Your task to perform on an android device: uninstall "Fetch Rewards" Image 0: 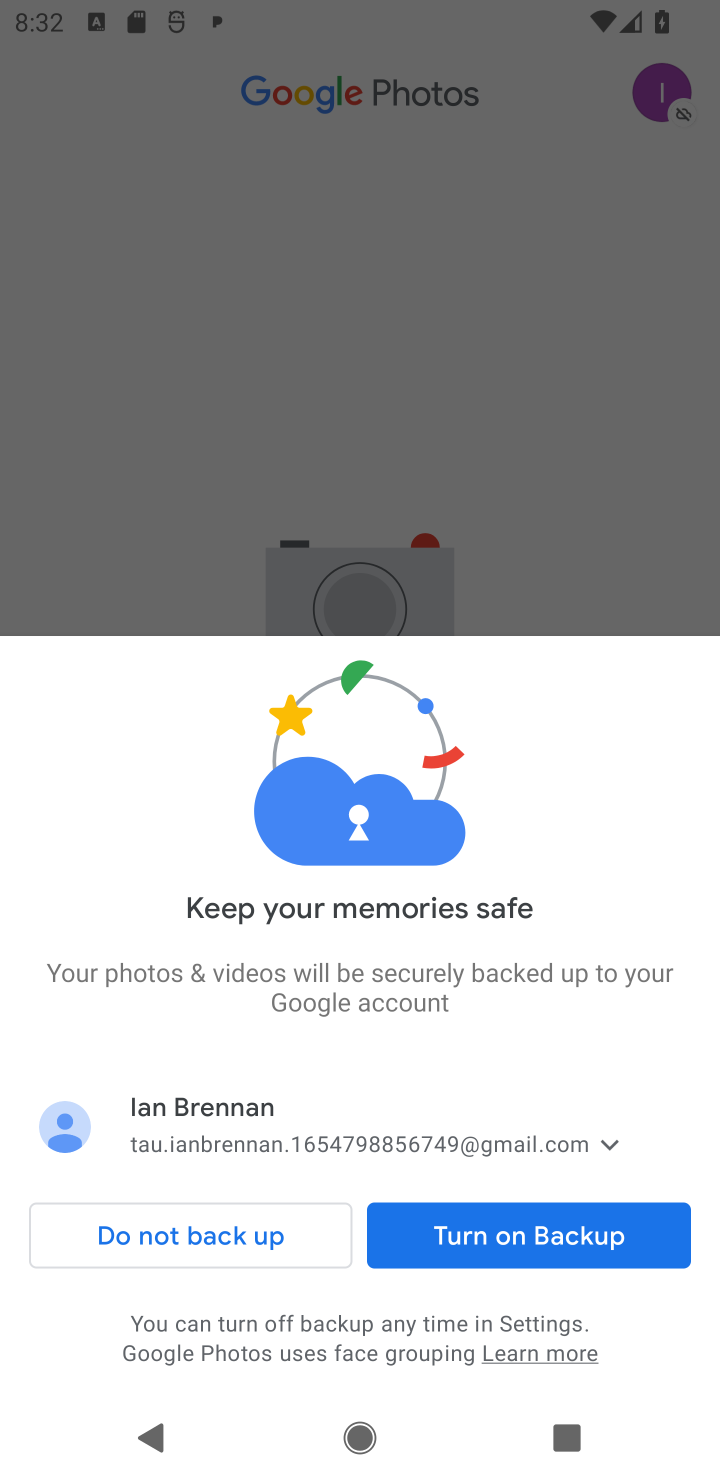
Step 0: press home button
Your task to perform on an android device: uninstall "Fetch Rewards" Image 1: 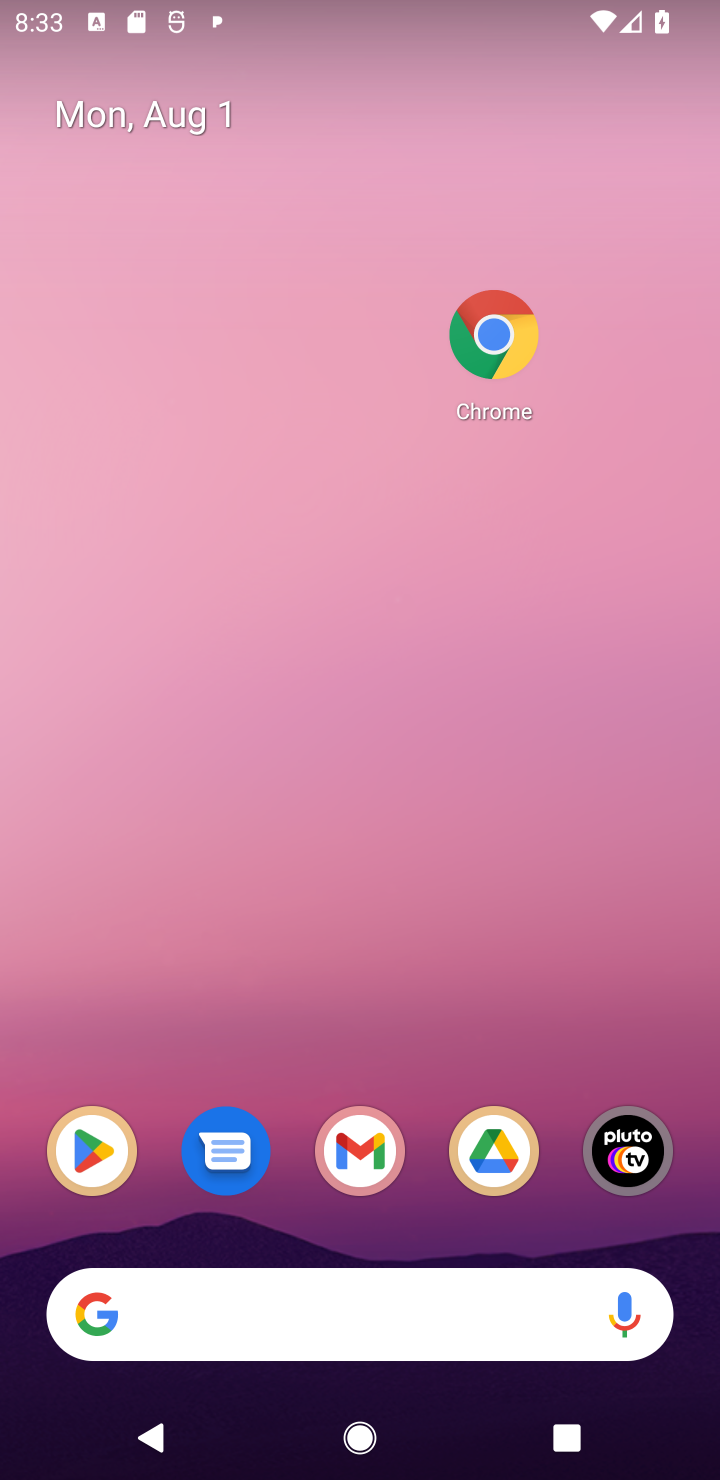
Step 1: click (91, 1153)
Your task to perform on an android device: uninstall "Fetch Rewards" Image 2: 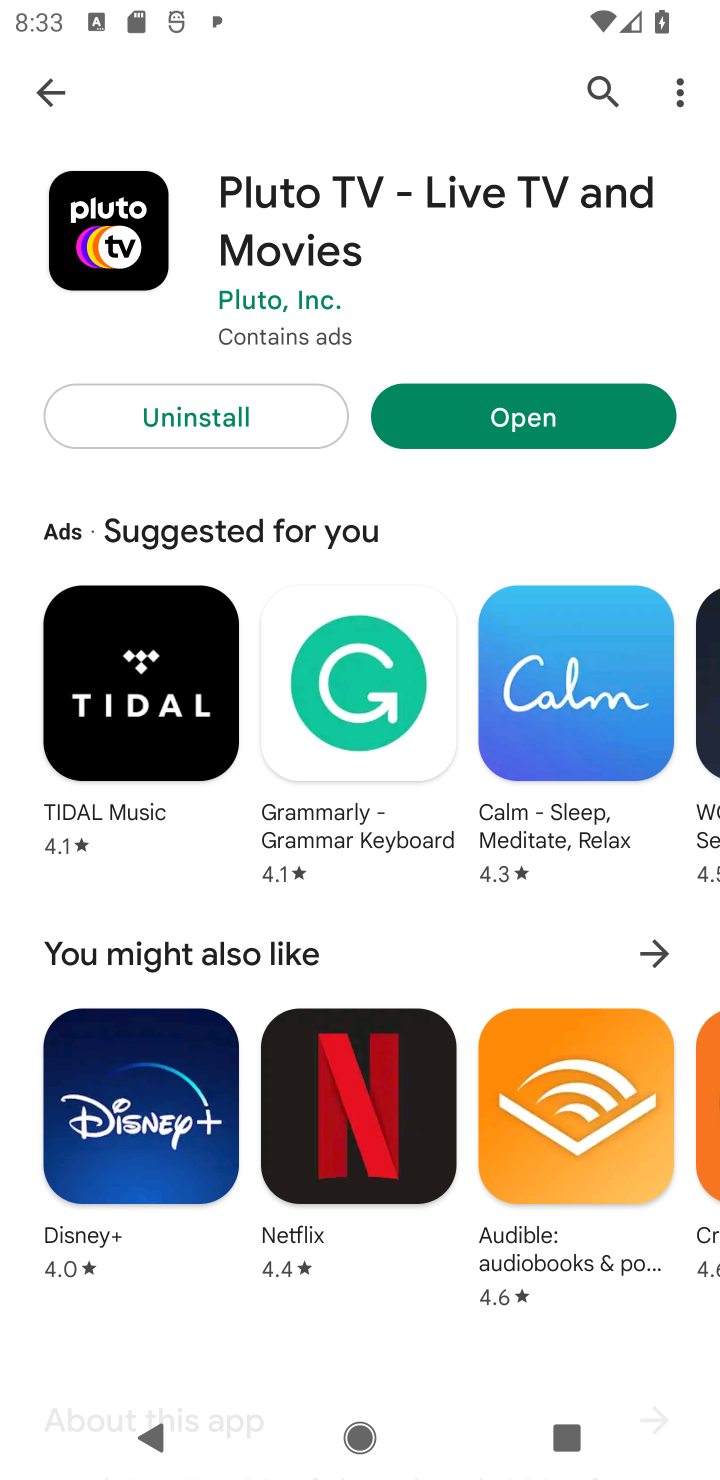
Step 2: click (597, 93)
Your task to perform on an android device: uninstall "Fetch Rewards" Image 3: 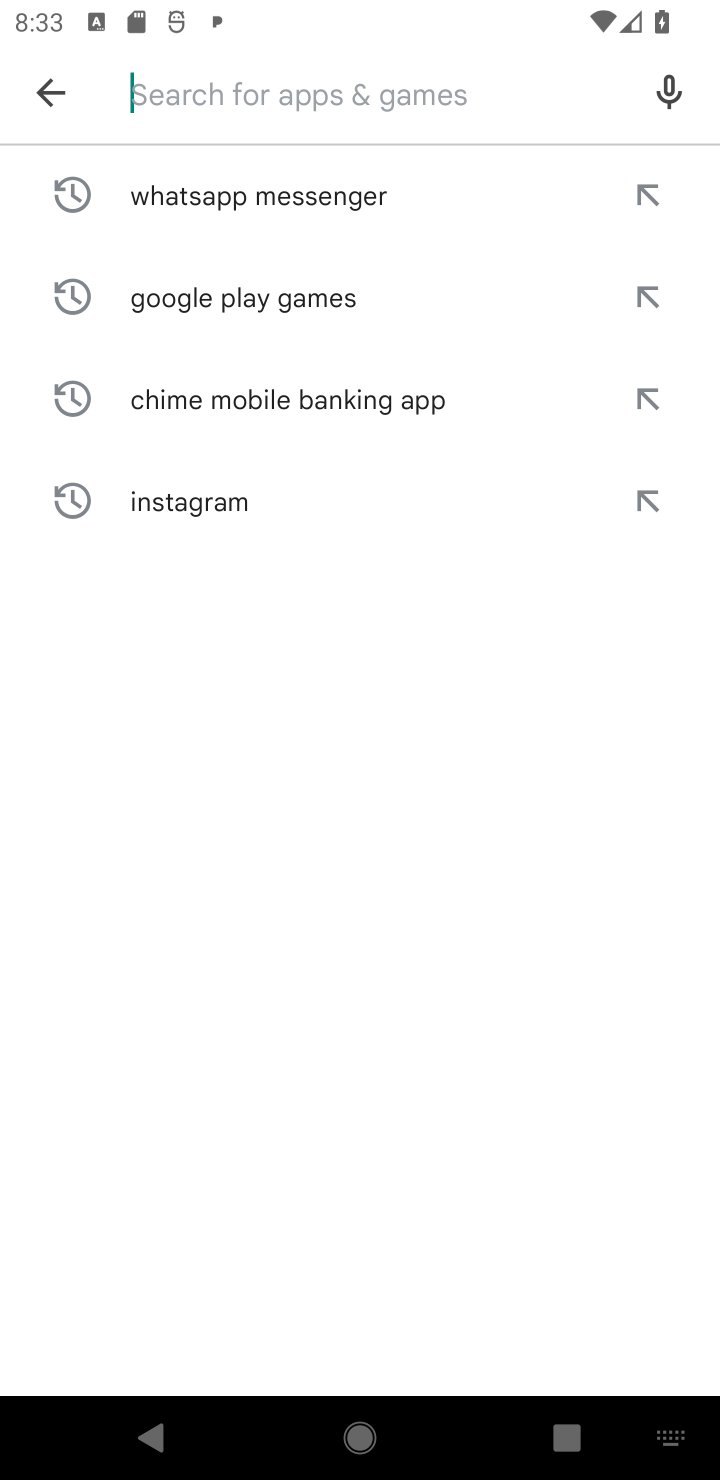
Step 3: type "Fetch Rewards"
Your task to perform on an android device: uninstall "Fetch Rewards" Image 4: 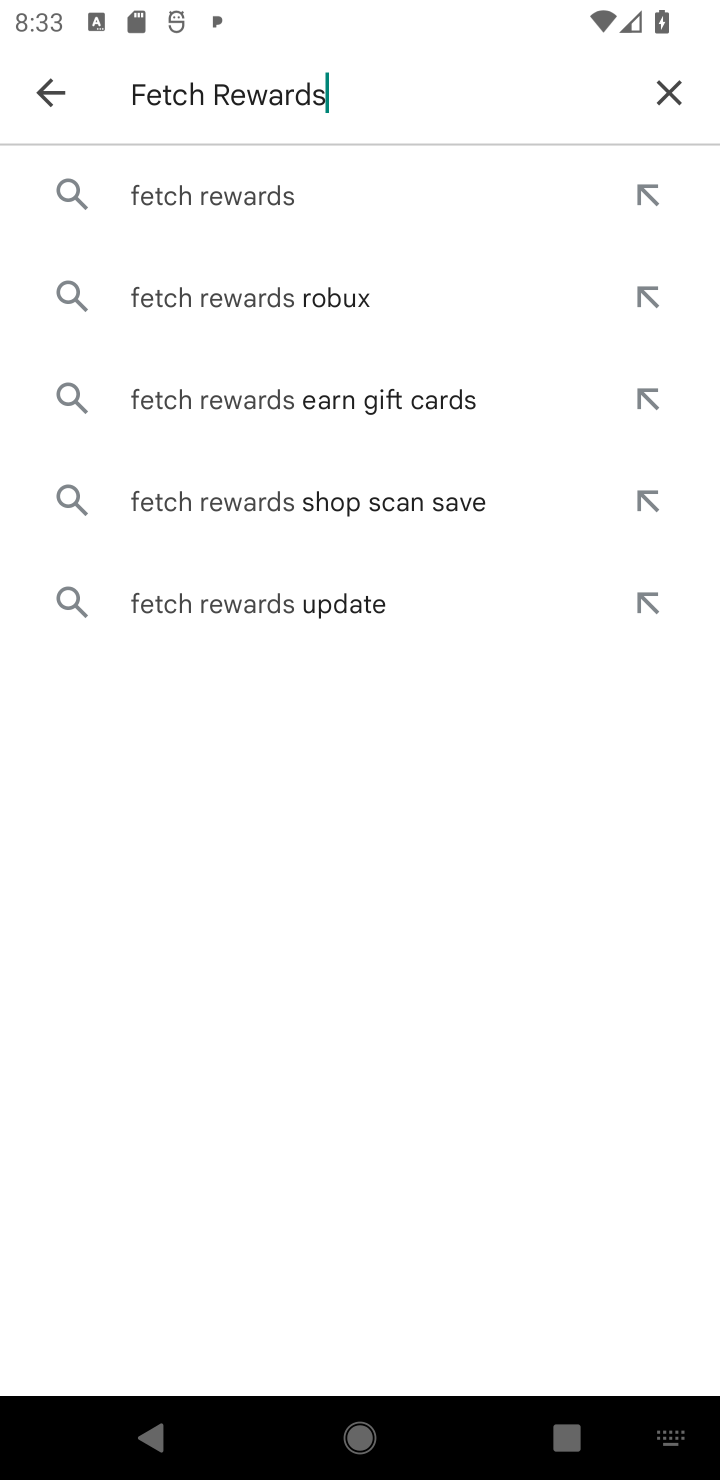
Step 4: click (262, 202)
Your task to perform on an android device: uninstall "Fetch Rewards" Image 5: 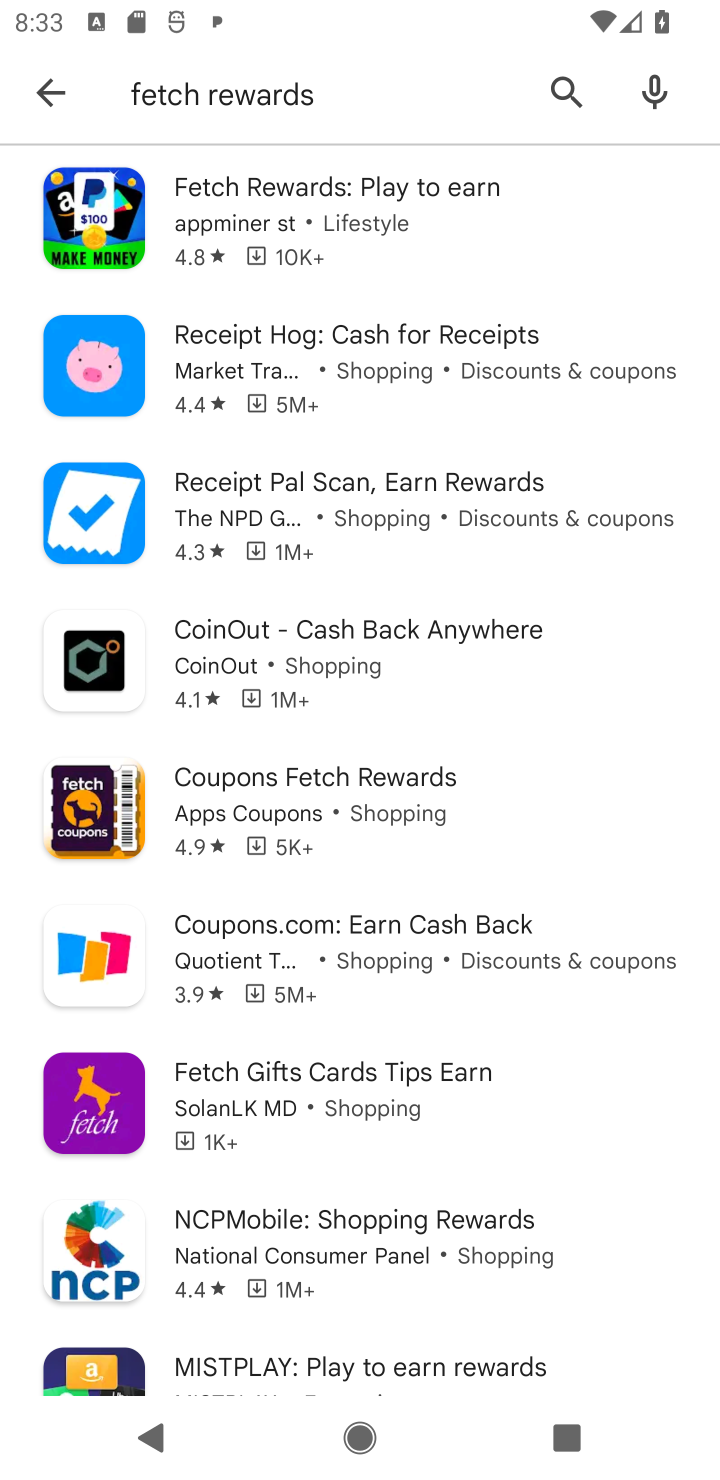
Step 5: click (262, 202)
Your task to perform on an android device: uninstall "Fetch Rewards" Image 6: 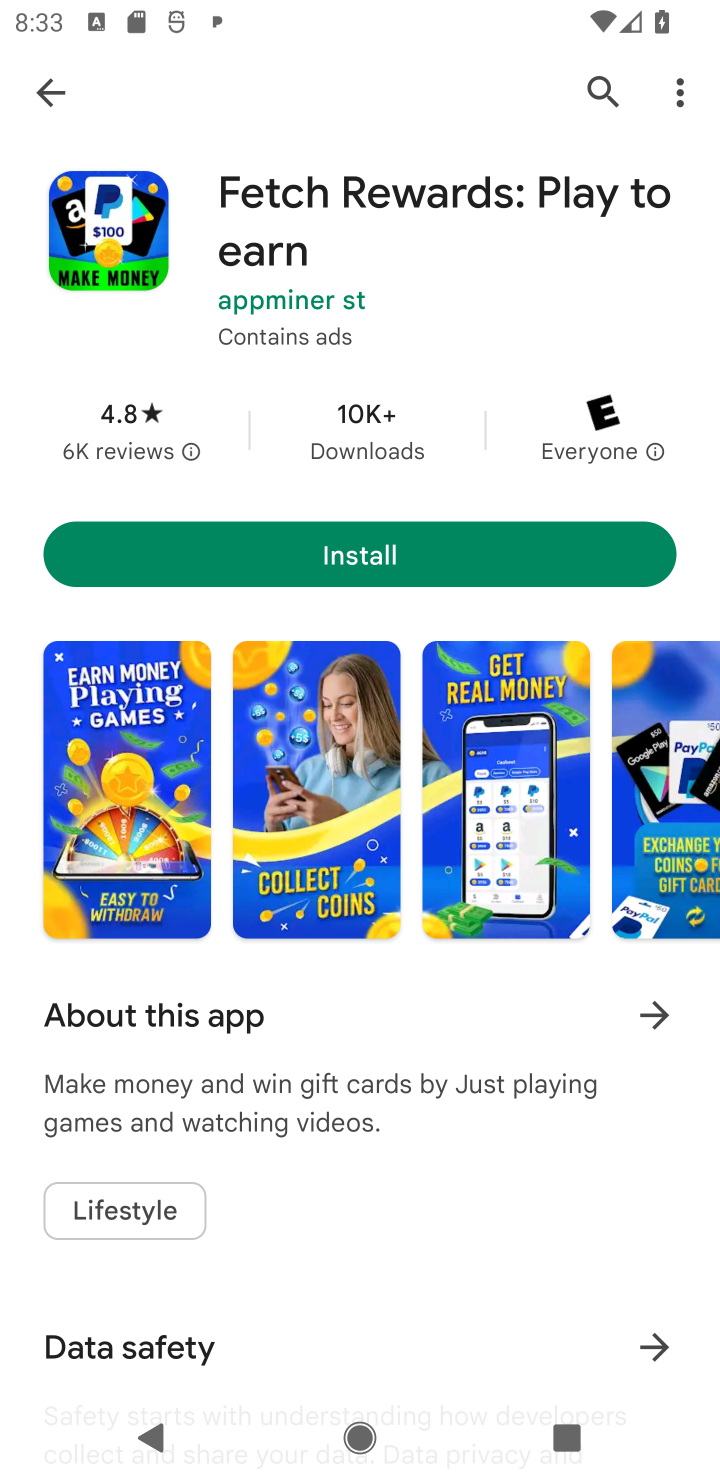
Step 6: task complete